Your task to perform on an android device: open a new tab in the chrome app Image 0: 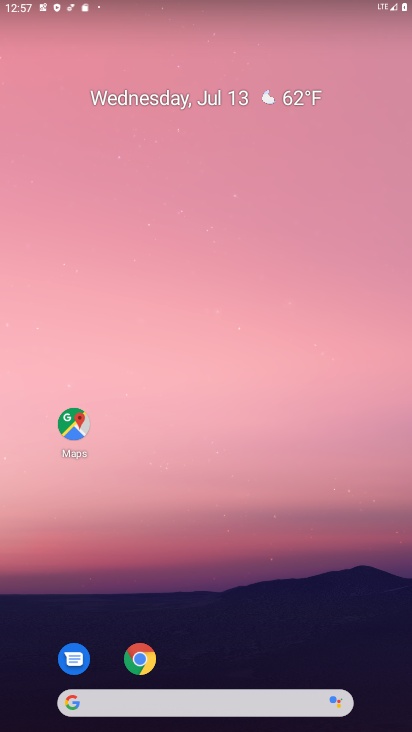
Step 0: drag from (239, 724) to (239, 101)
Your task to perform on an android device: open a new tab in the chrome app Image 1: 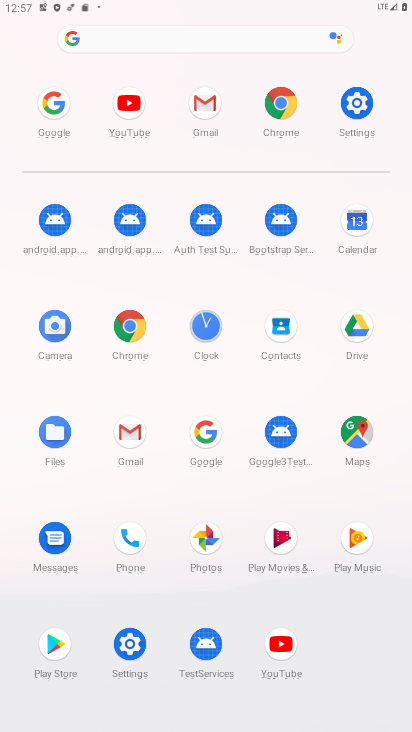
Step 1: click (131, 323)
Your task to perform on an android device: open a new tab in the chrome app Image 2: 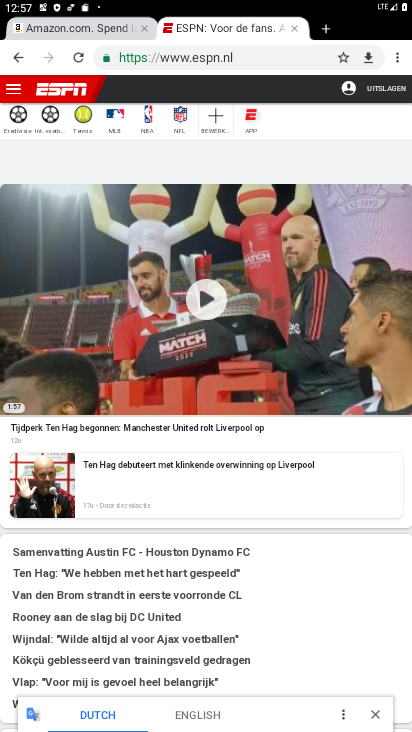
Step 2: click (396, 61)
Your task to perform on an android device: open a new tab in the chrome app Image 3: 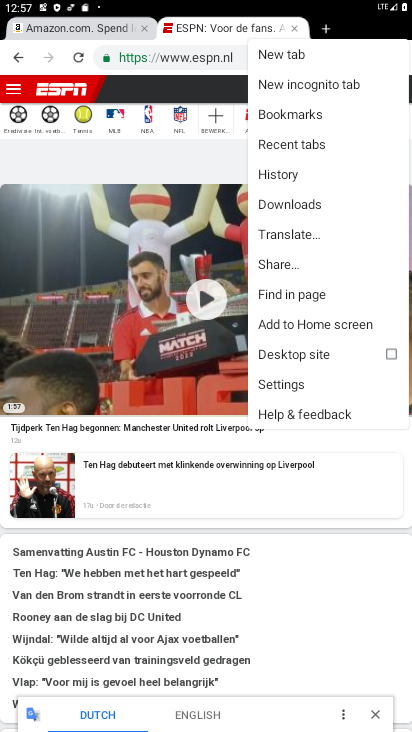
Step 3: click (281, 54)
Your task to perform on an android device: open a new tab in the chrome app Image 4: 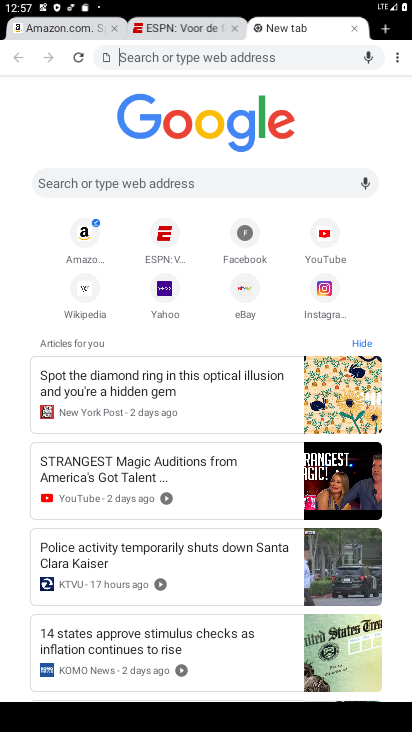
Step 4: task complete